Your task to perform on an android device: empty trash in the gmail app Image 0: 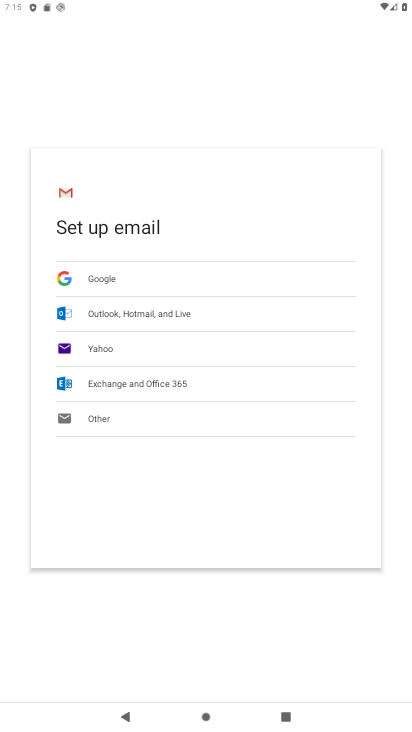
Step 0: press home button
Your task to perform on an android device: empty trash in the gmail app Image 1: 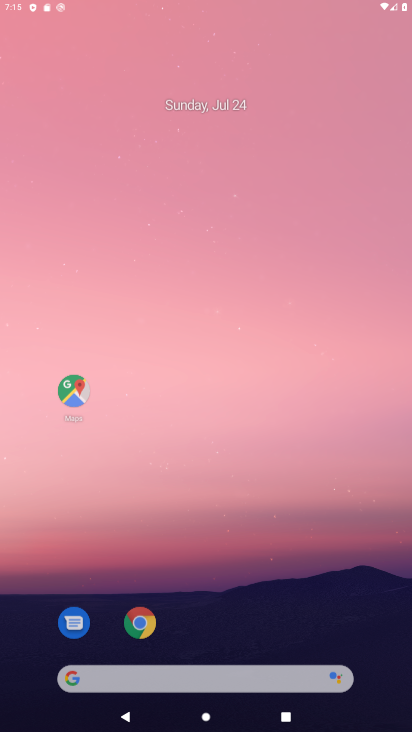
Step 1: drag from (395, 649) to (215, 7)
Your task to perform on an android device: empty trash in the gmail app Image 2: 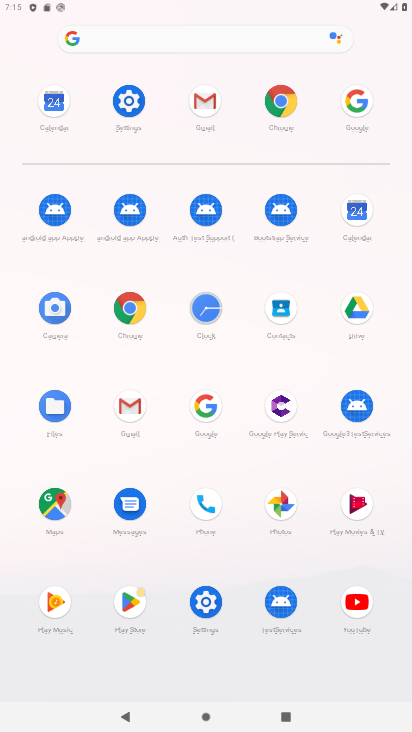
Step 2: click (120, 419)
Your task to perform on an android device: empty trash in the gmail app Image 3: 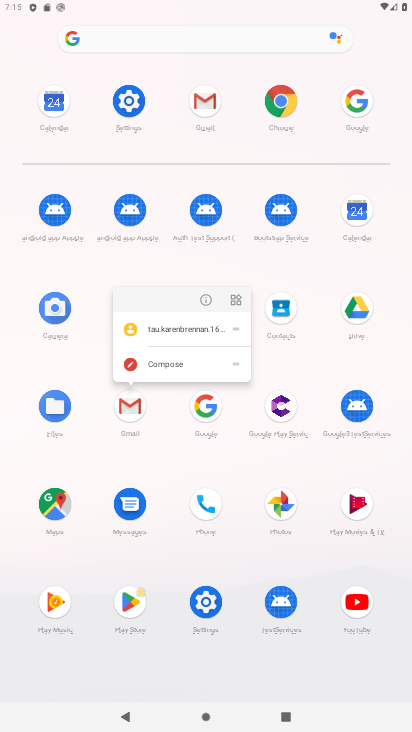
Step 3: click (120, 418)
Your task to perform on an android device: empty trash in the gmail app Image 4: 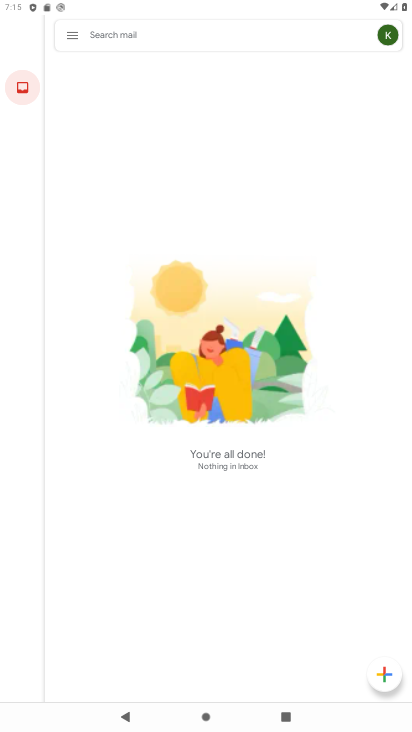
Step 4: click (77, 36)
Your task to perform on an android device: empty trash in the gmail app Image 5: 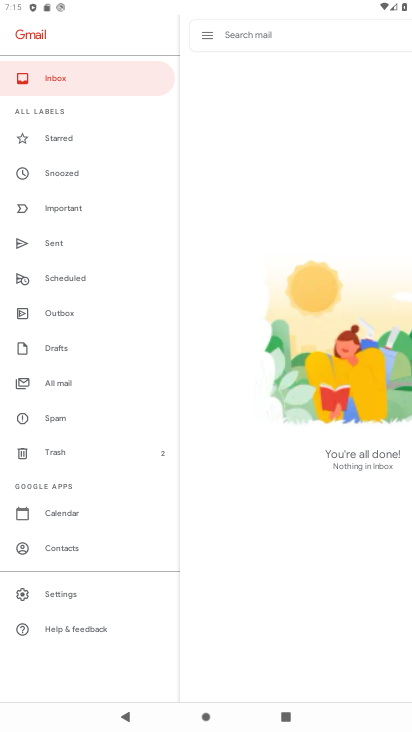
Step 5: click (58, 457)
Your task to perform on an android device: empty trash in the gmail app Image 6: 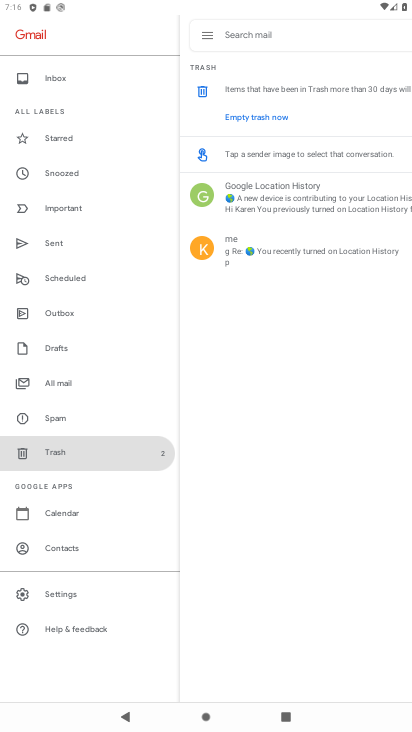
Step 6: click (243, 122)
Your task to perform on an android device: empty trash in the gmail app Image 7: 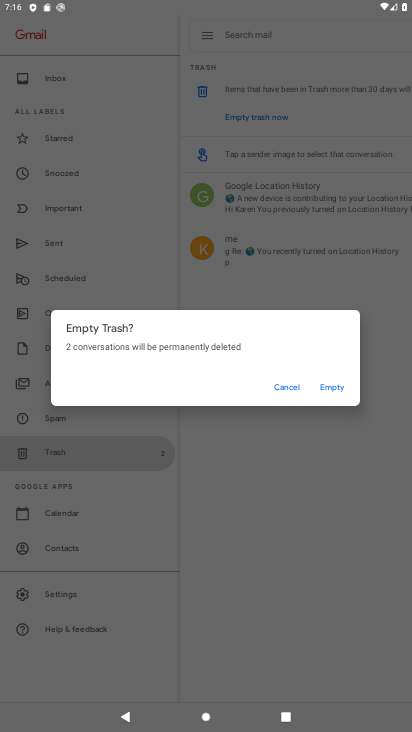
Step 7: click (341, 384)
Your task to perform on an android device: empty trash in the gmail app Image 8: 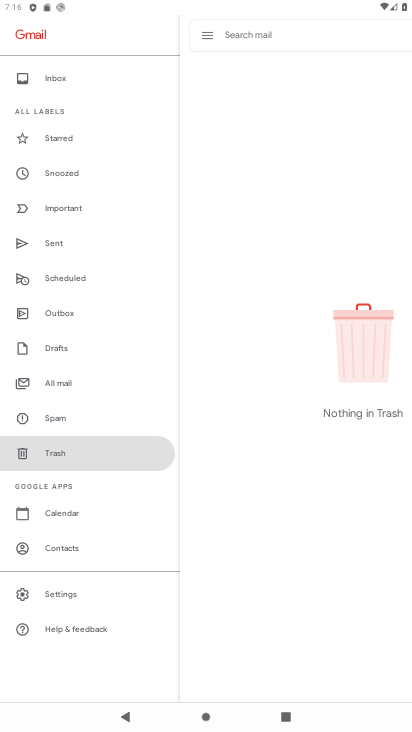
Step 8: task complete